Your task to perform on an android device: install app "Microsoft Excel" Image 0: 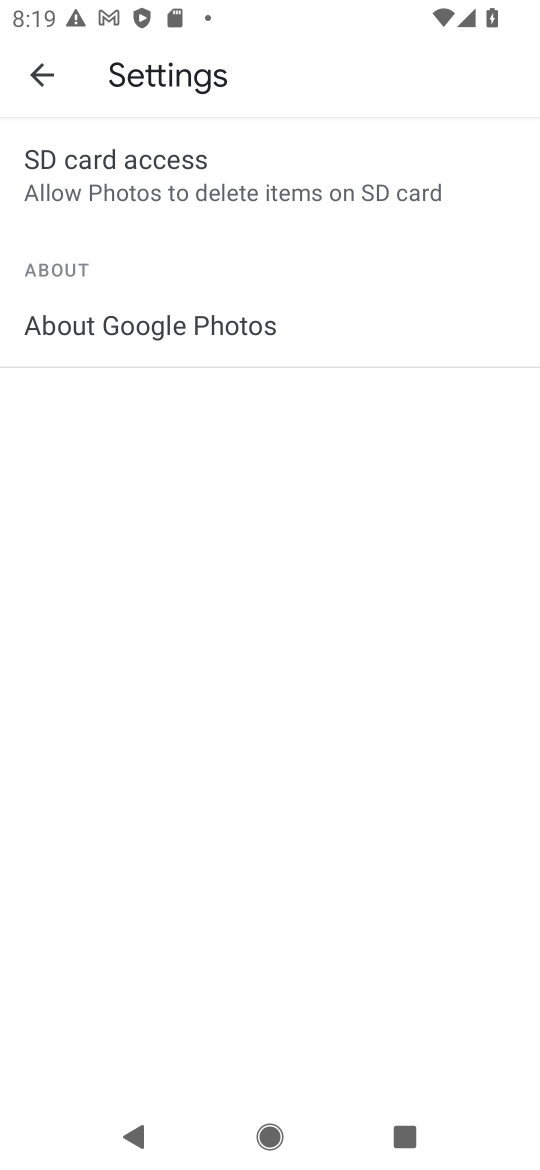
Step 0: press home button
Your task to perform on an android device: install app "Microsoft Excel" Image 1: 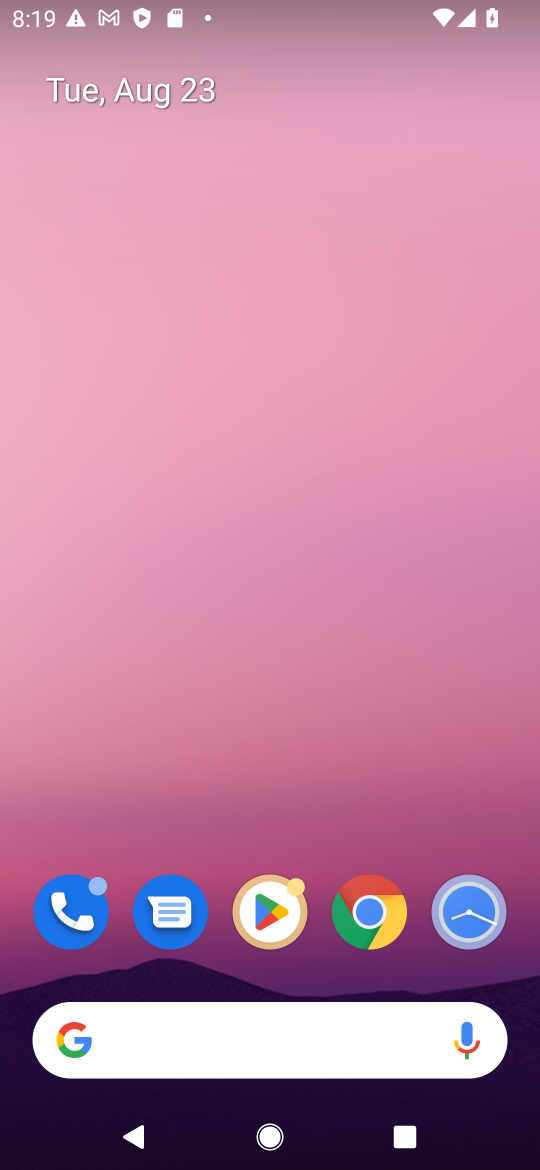
Step 1: drag from (189, 1051) to (379, 59)
Your task to perform on an android device: install app "Microsoft Excel" Image 2: 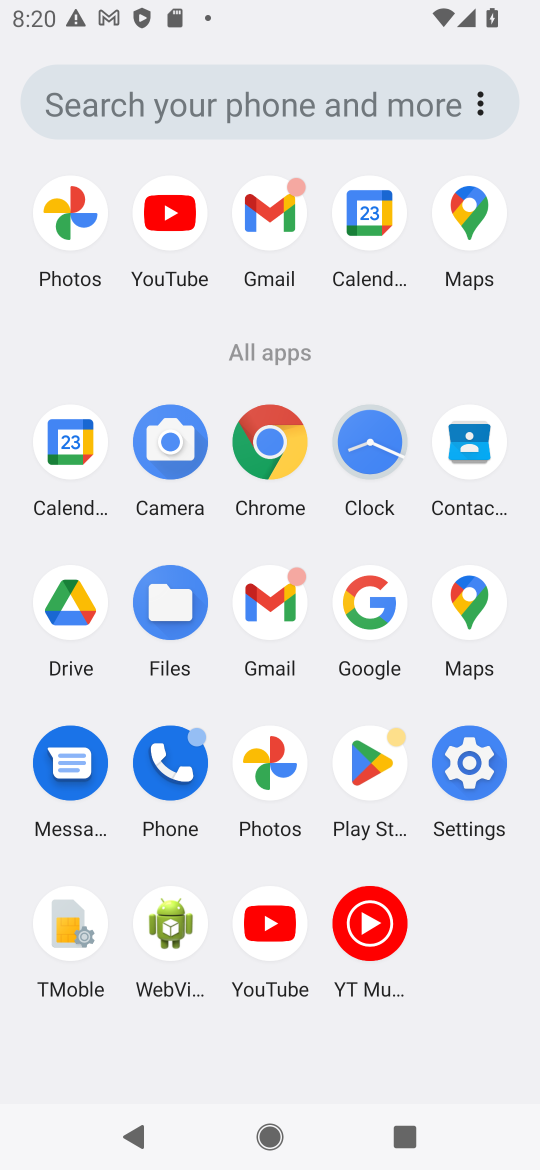
Step 2: click (373, 772)
Your task to perform on an android device: install app "Microsoft Excel" Image 3: 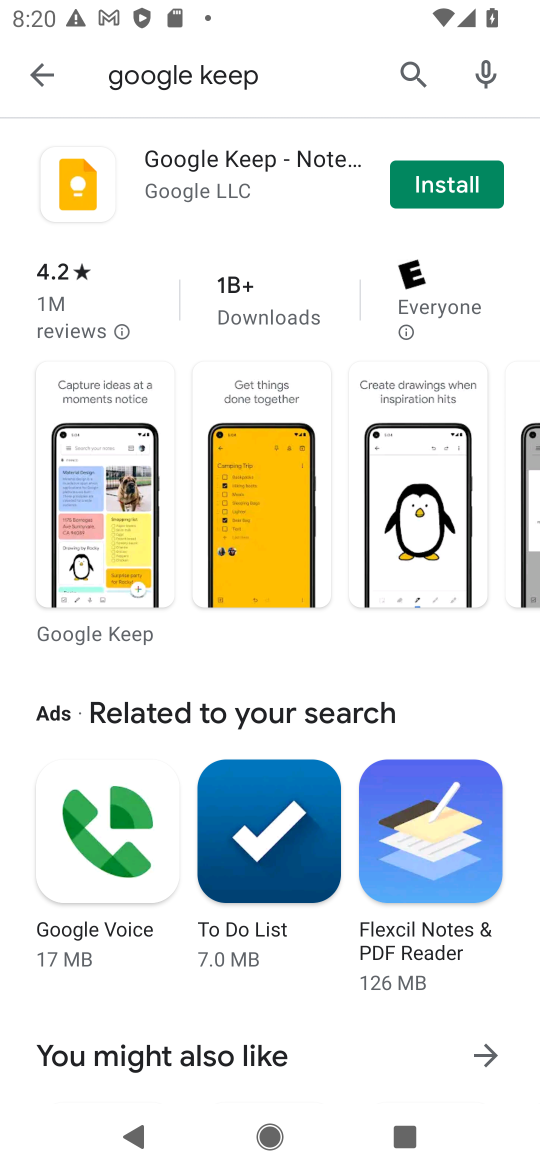
Step 3: press back button
Your task to perform on an android device: install app "Microsoft Excel" Image 4: 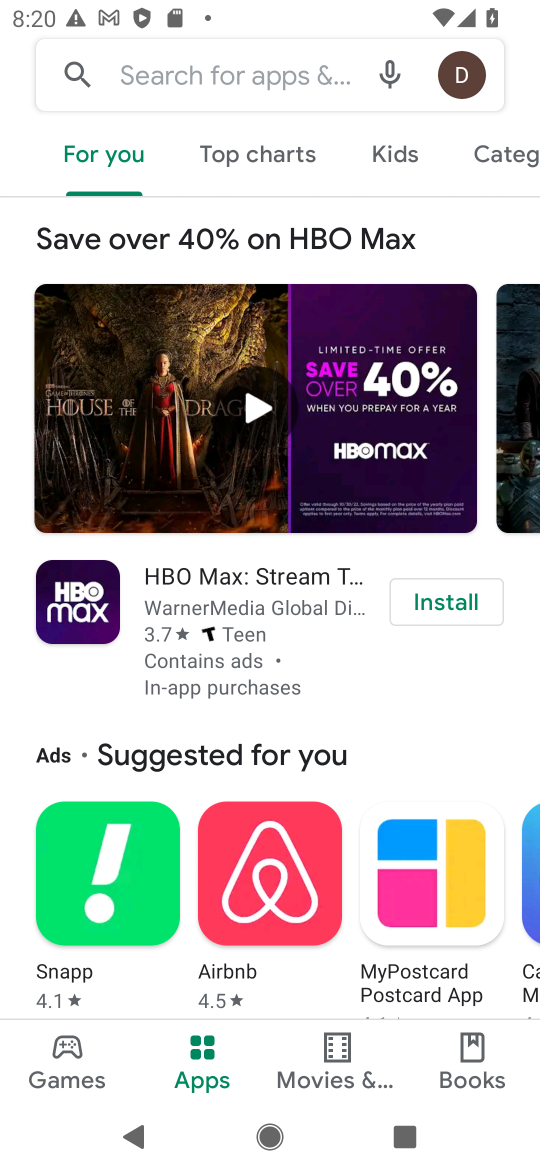
Step 4: click (249, 66)
Your task to perform on an android device: install app "Microsoft Excel" Image 5: 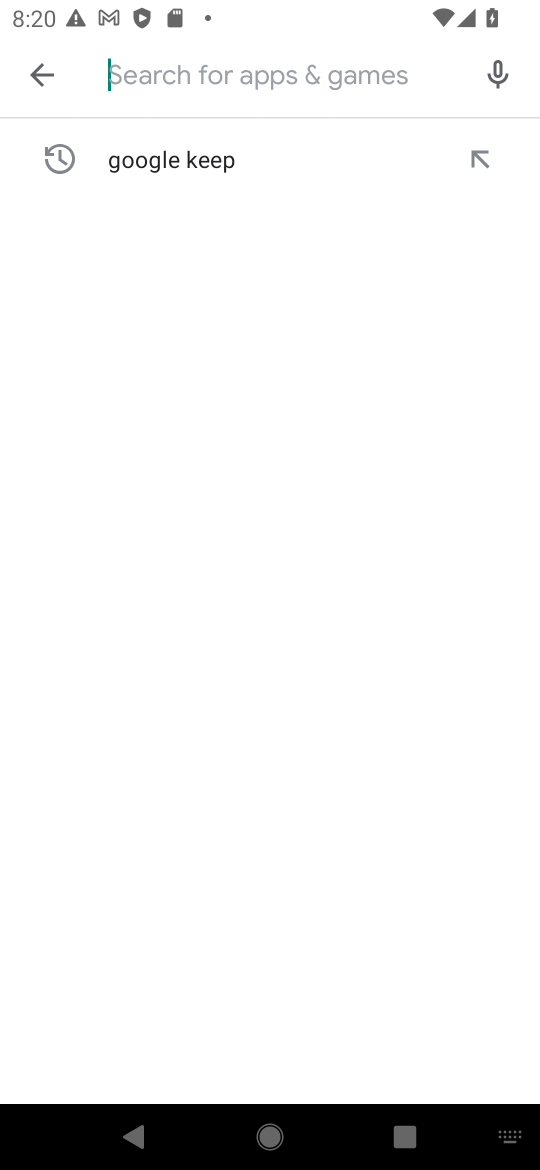
Step 5: type "Microsoft Excel"
Your task to perform on an android device: install app "Microsoft Excel" Image 6: 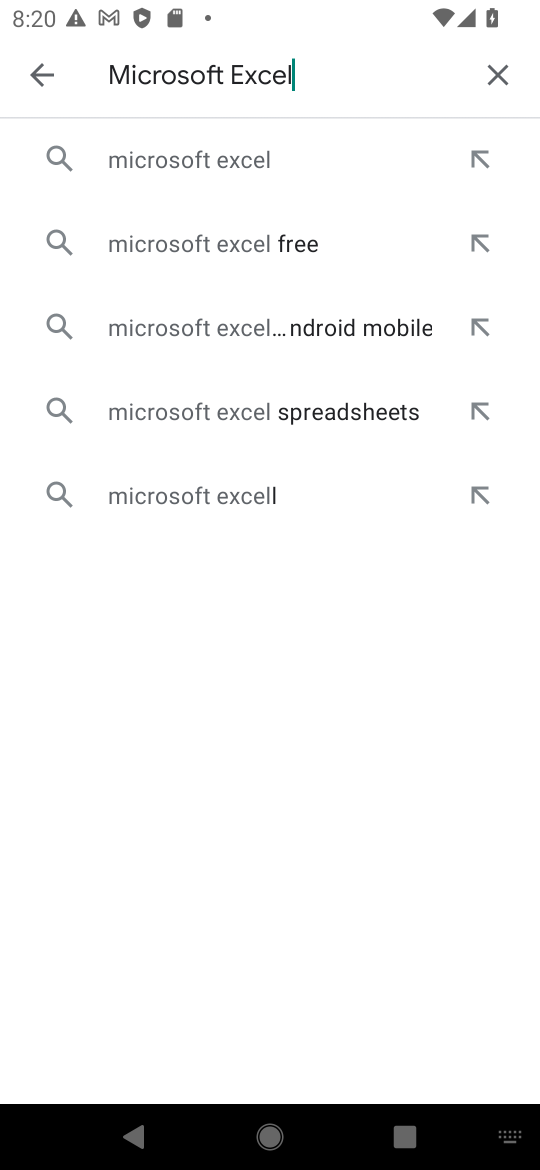
Step 6: click (202, 146)
Your task to perform on an android device: install app "Microsoft Excel" Image 7: 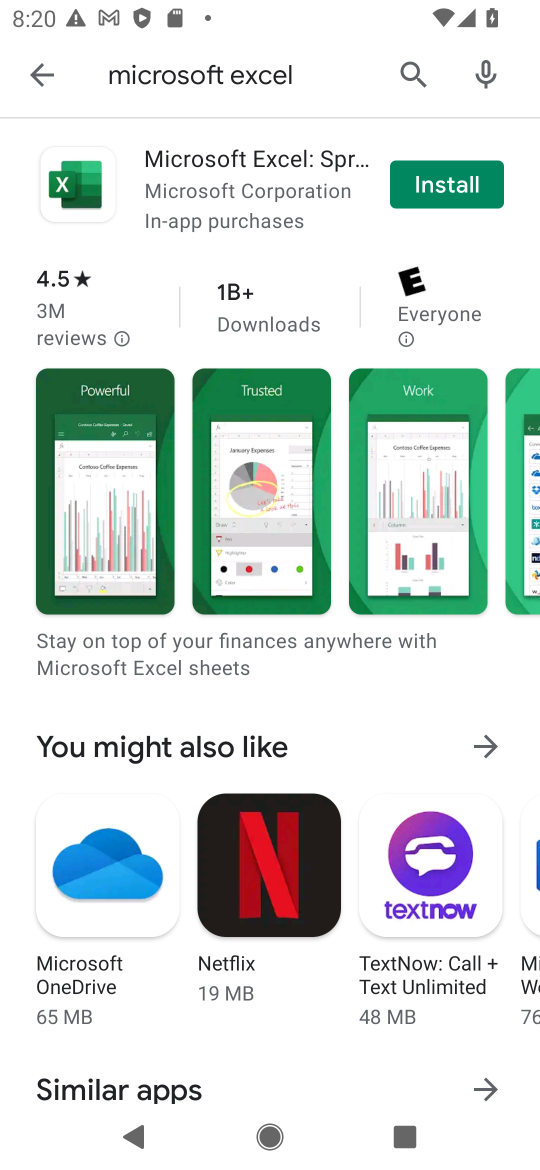
Step 7: click (454, 178)
Your task to perform on an android device: install app "Microsoft Excel" Image 8: 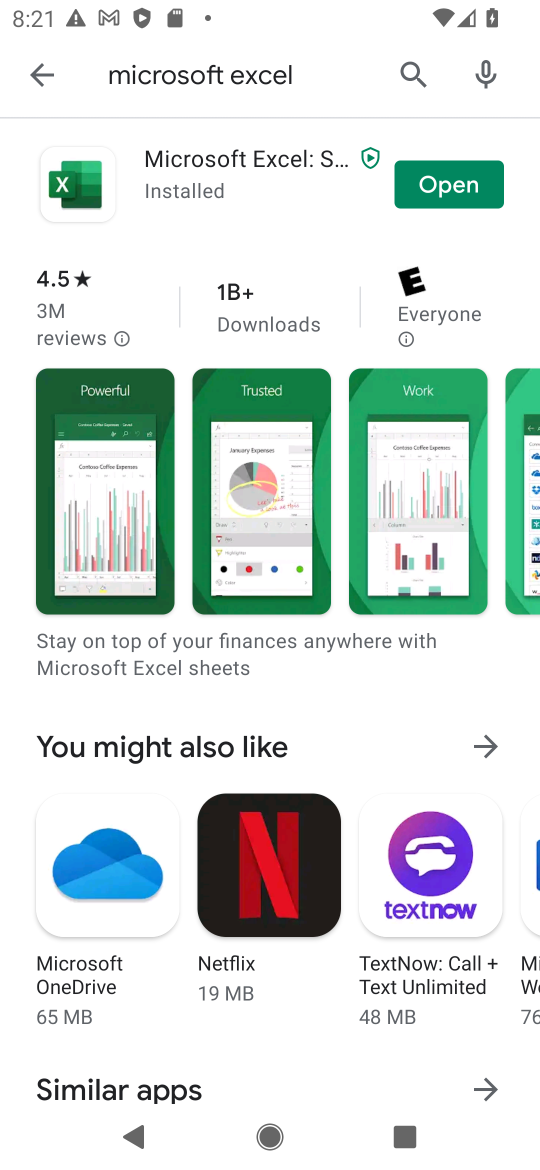
Step 8: task complete